Your task to perform on an android device: turn off location Image 0: 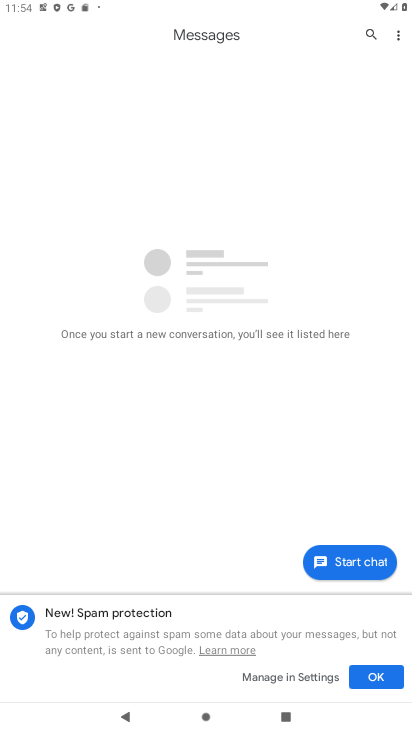
Step 0: press home button
Your task to perform on an android device: turn off location Image 1: 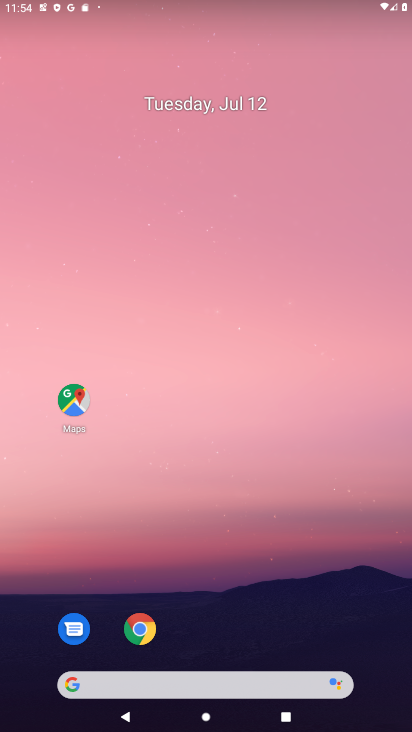
Step 1: drag from (295, 493) to (310, 33)
Your task to perform on an android device: turn off location Image 2: 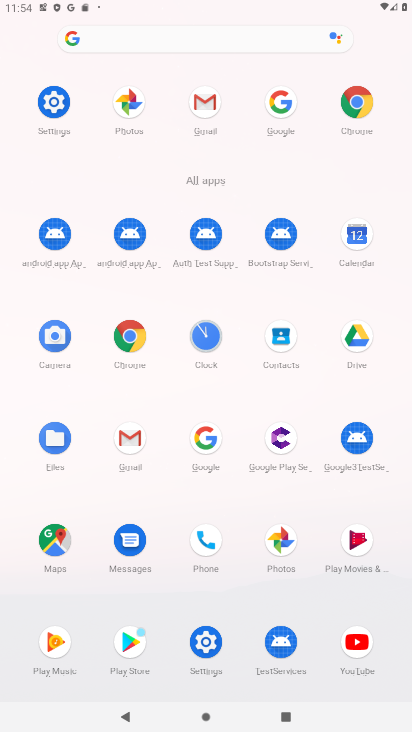
Step 2: click (66, 91)
Your task to perform on an android device: turn off location Image 3: 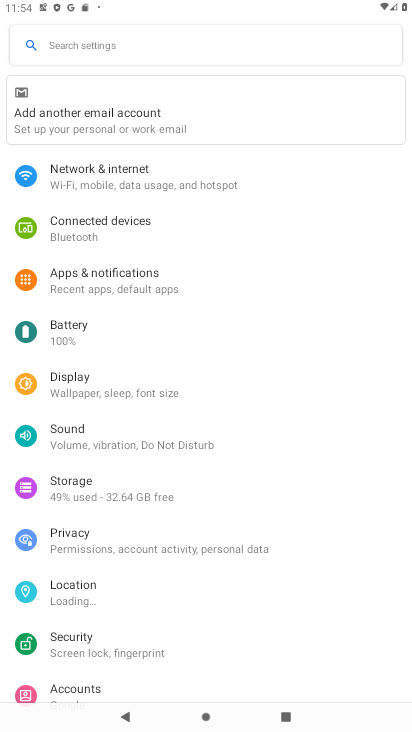
Step 3: click (85, 588)
Your task to perform on an android device: turn off location Image 4: 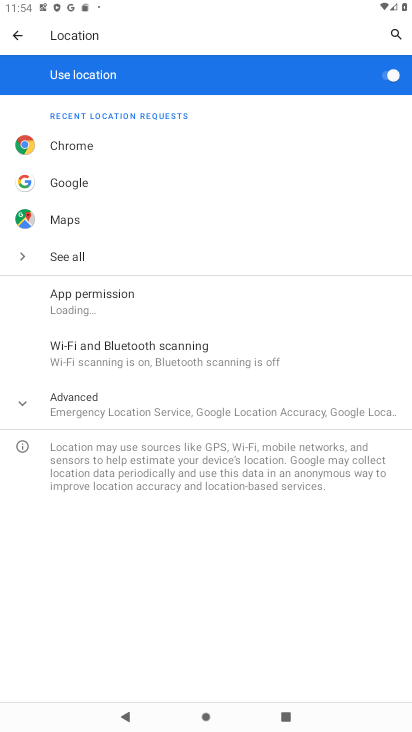
Step 4: click (384, 73)
Your task to perform on an android device: turn off location Image 5: 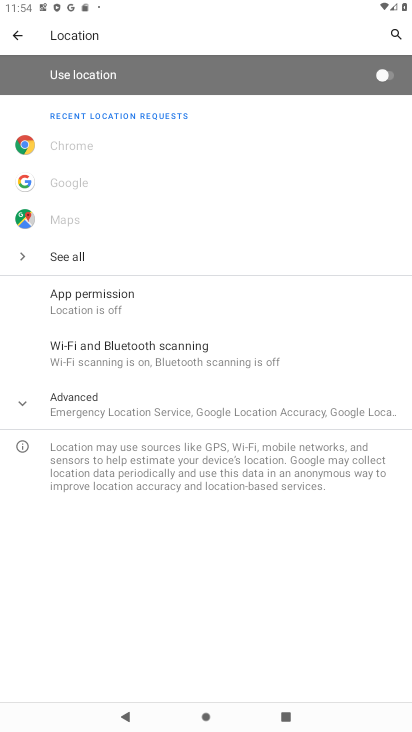
Step 5: task complete